Your task to perform on an android device: Open the map Image 0: 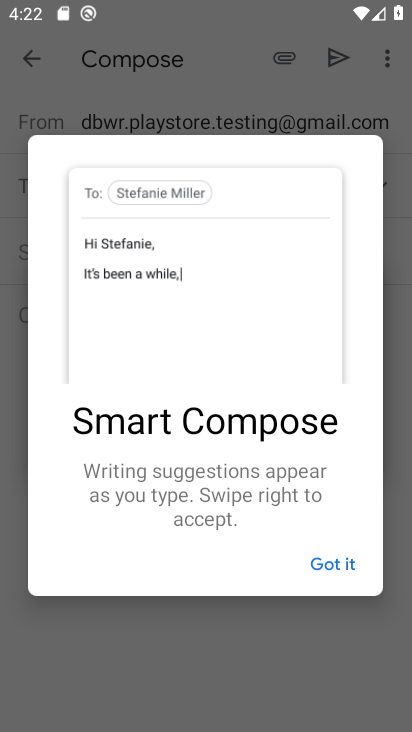
Step 0: click (347, 569)
Your task to perform on an android device: Open the map Image 1: 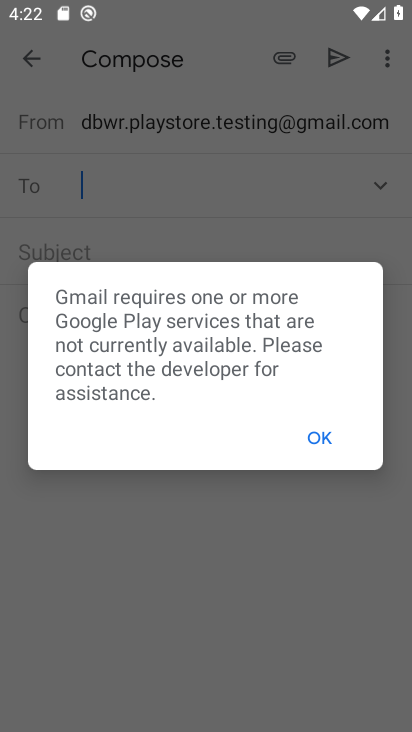
Step 1: click (321, 432)
Your task to perform on an android device: Open the map Image 2: 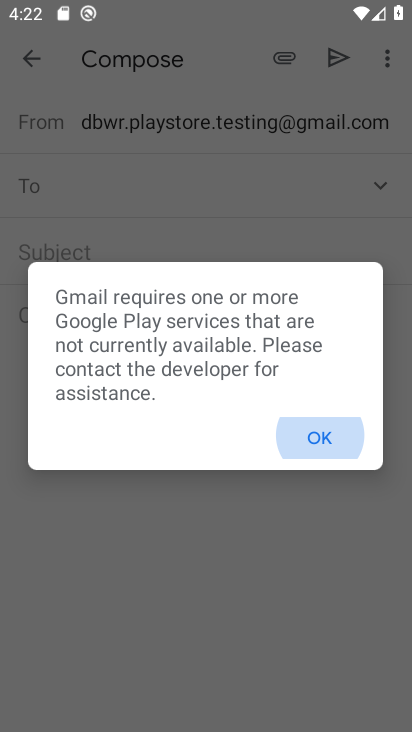
Step 2: click (321, 432)
Your task to perform on an android device: Open the map Image 3: 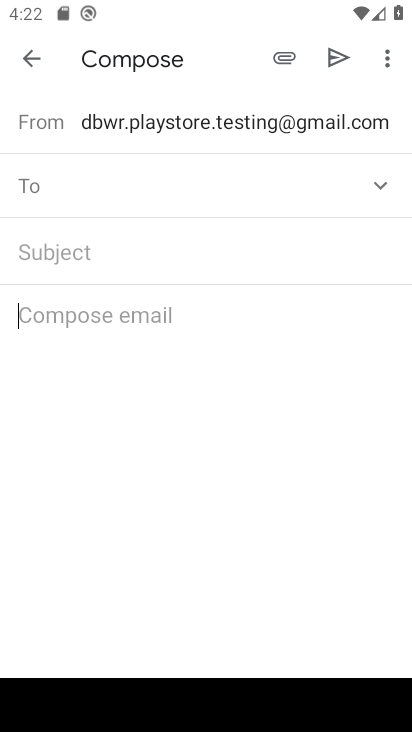
Step 3: click (3, 47)
Your task to perform on an android device: Open the map Image 4: 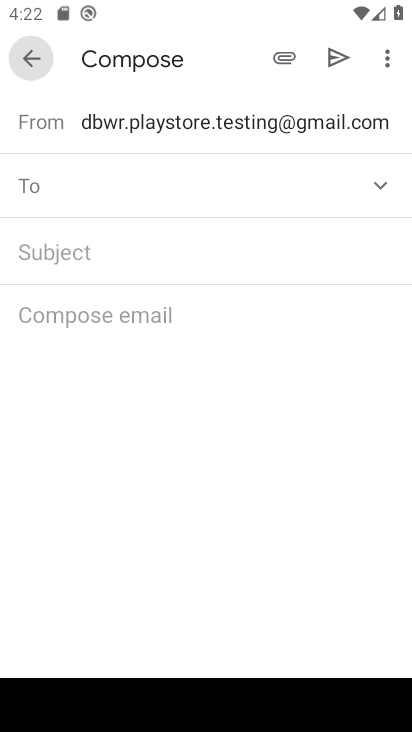
Step 4: click (24, 56)
Your task to perform on an android device: Open the map Image 5: 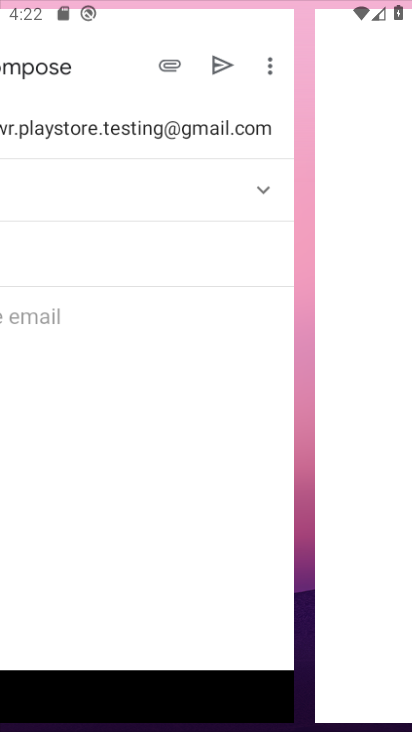
Step 5: click (24, 56)
Your task to perform on an android device: Open the map Image 6: 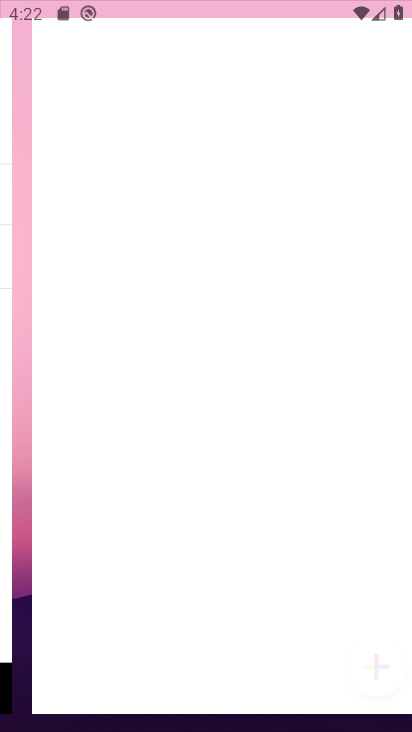
Step 6: click (25, 57)
Your task to perform on an android device: Open the map Image 7: 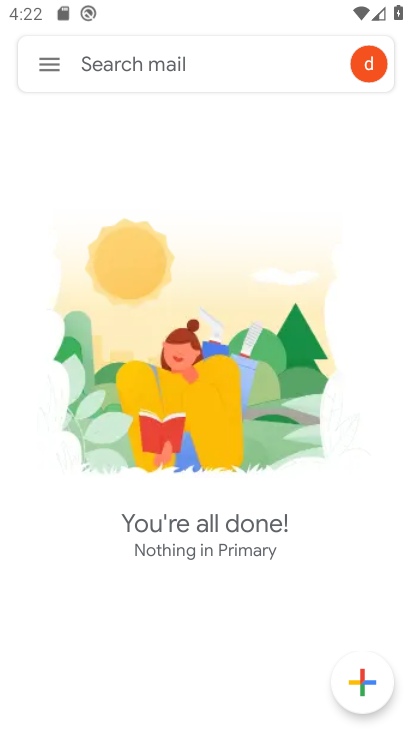
Step 7: press back button
Your task to perform on an android device: Open the map Image 8: 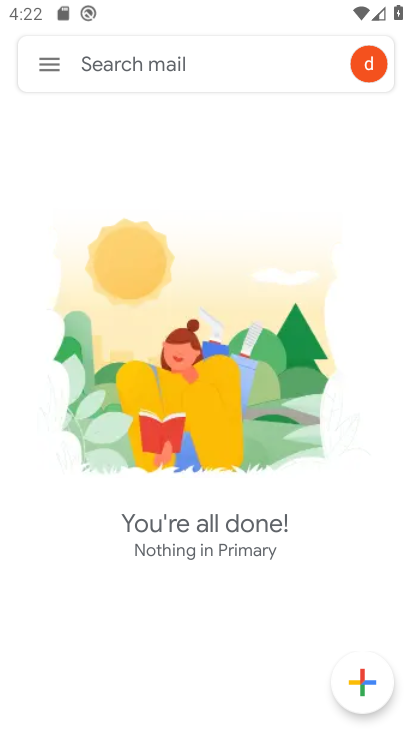
Step 8: press back button
Your task to perform on an android device: Open the map Image 9: 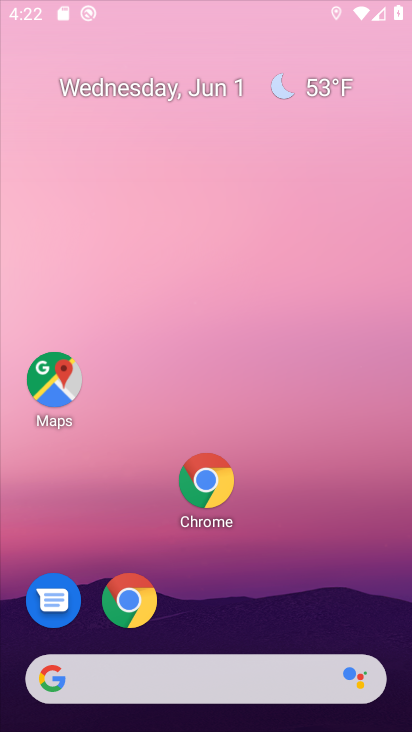
Step 9: press back button
Your task to perform on an android device: Open the map Image 10: 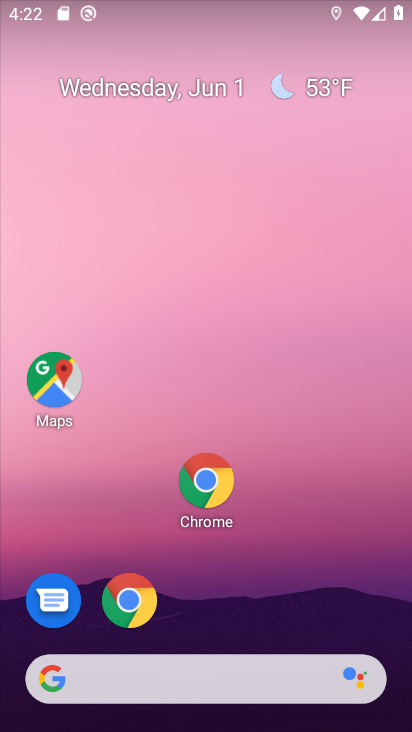
Step 10: drag from (279, 713) to (144, 245)
Your task to perform on an android device: Open the map Image 11: 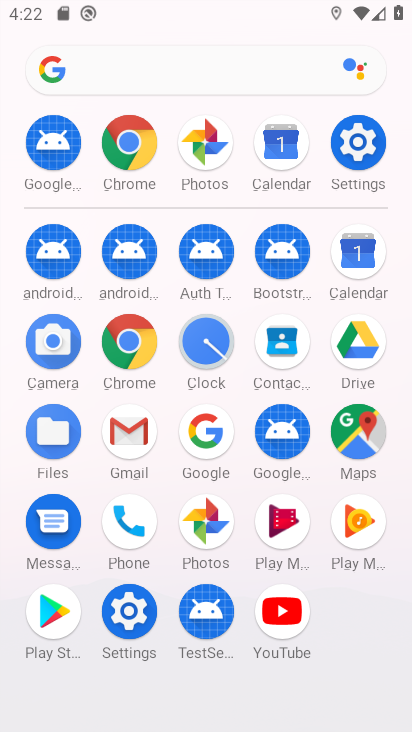
Step 11: click (350, 424)
Your task to perform on an android device: Open the map Image 12: 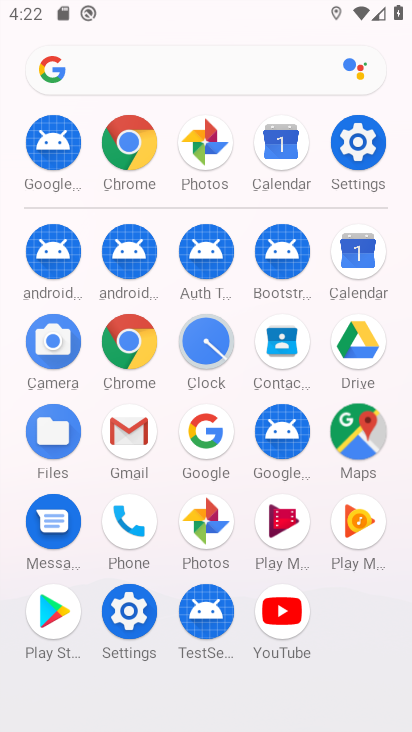
Step 12: click (348, 425)
Your task to perform on an android device: Open the map Image 13: 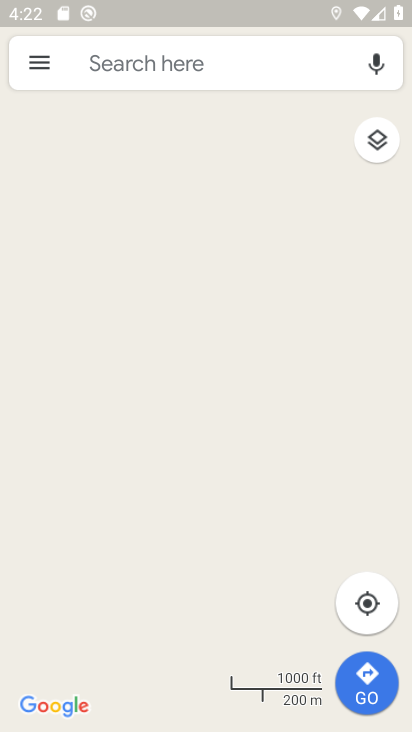
Step 13: click (48, 69)
Your task to perform on an android device: Open the map Image 14: 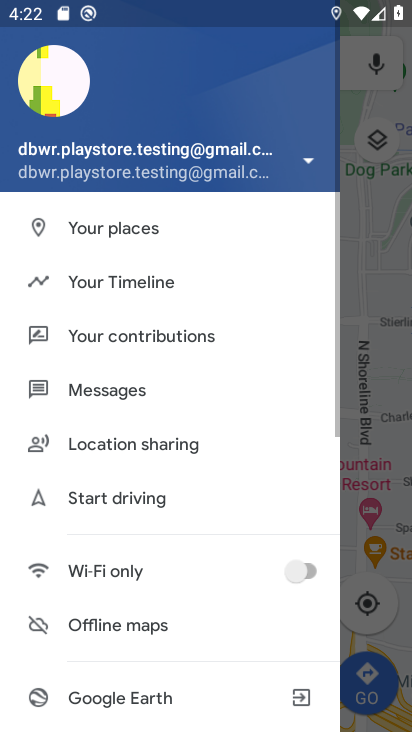
Step 14: click (129, 274)
Your task to perform on an android device: Open the map Image 15: 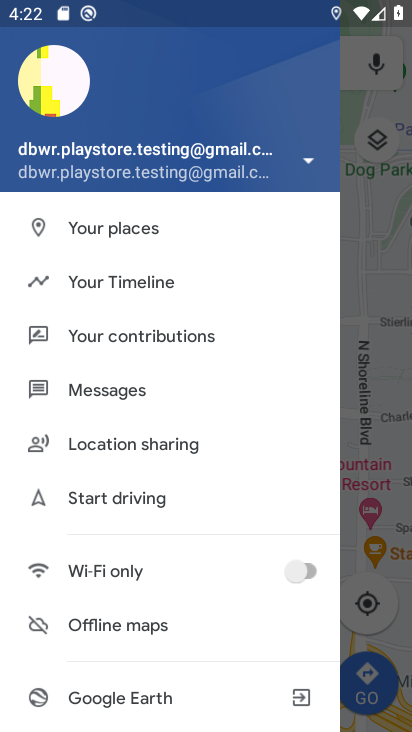
Step 15: click (129, 274)
Your task to perform on an android device: Open the map Image 16: 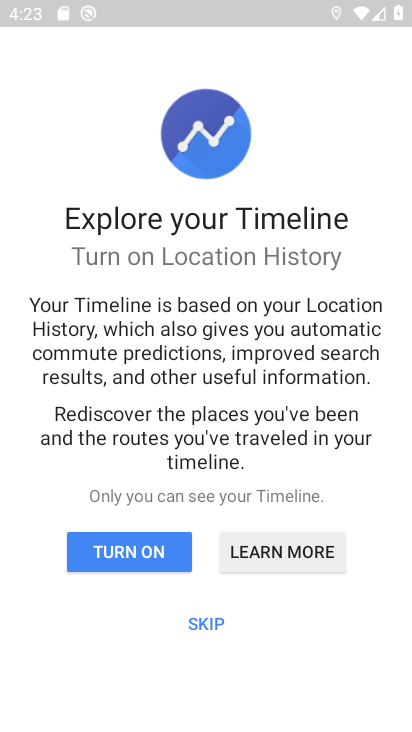
Step 16: task complete